Your task to perform on an android device: Open Google Chrome Image 0: 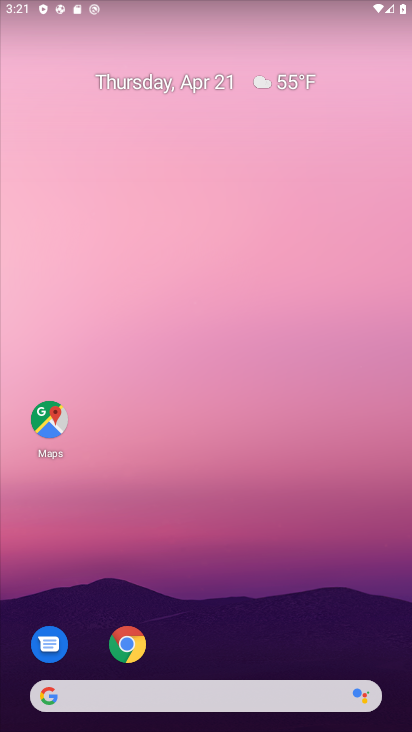
Step 0: click (126, 644)
Your task to perform on an android device: Open Google Chrome Image 1: 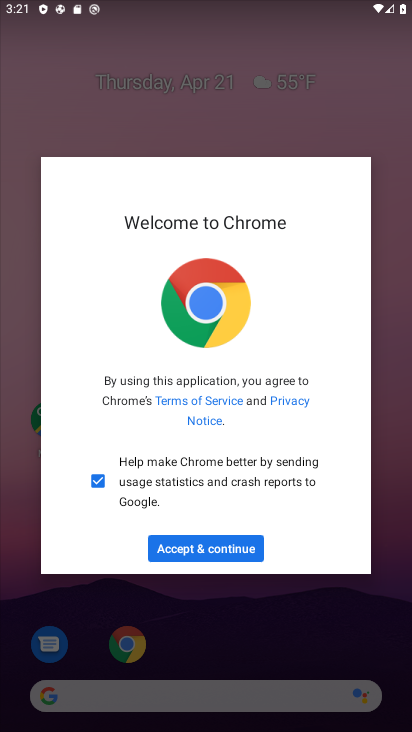
Step 1: click (221, 552)
Your task to perform on an android device: Open Google Chrome Image 2: 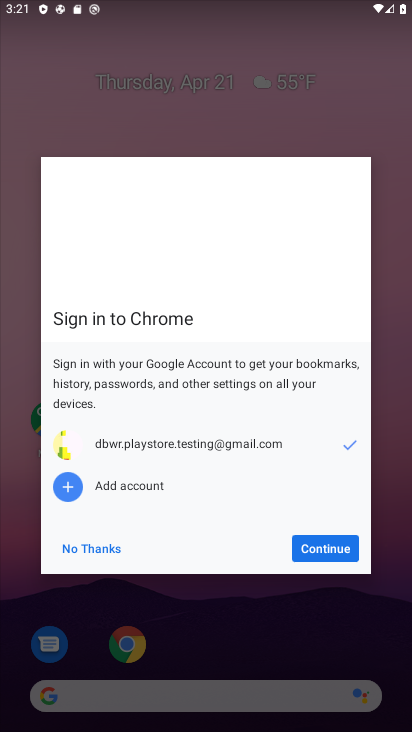
Step 2: click (325, 553)
Your task to perform on an android device: Open Google Chrome Image 3: 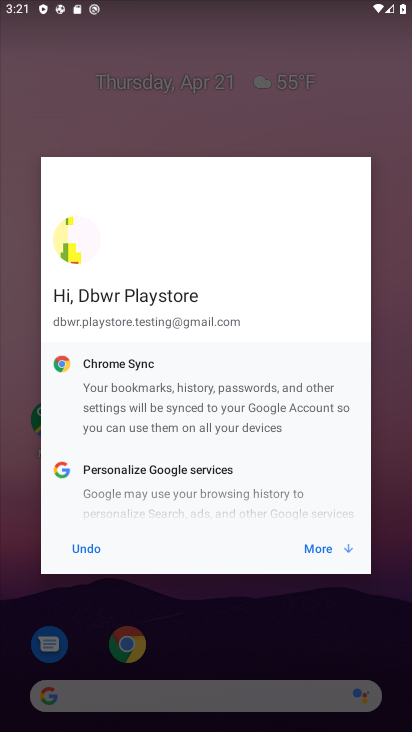
Step 3: click (324, 548)
Your task to perform on an android device: Open Google Chrome Image 4: 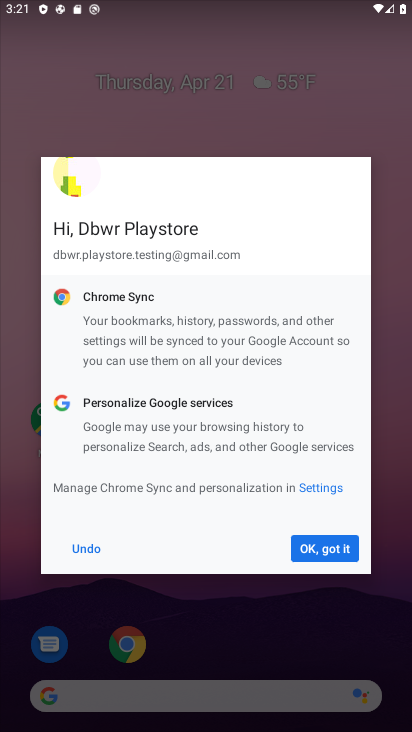
Step 4: click (324, 548)
Your task to perform on an android device: Open Google Chrome Image 5: 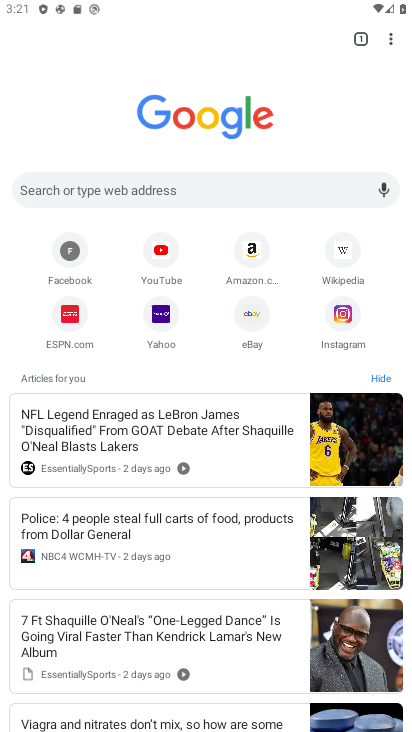
Step 5: task complete